Your task to perform on an android device: turn on location history Image 0: 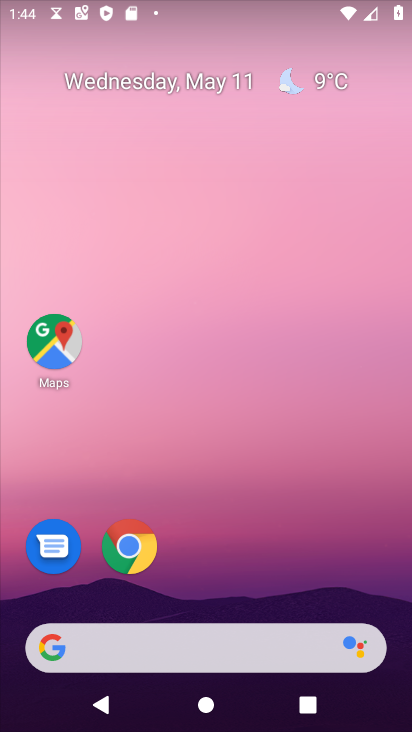
Step 0: drag from (259, 674) to (250, 262)
Your task to perform on an android device: turn on location history Image 1: 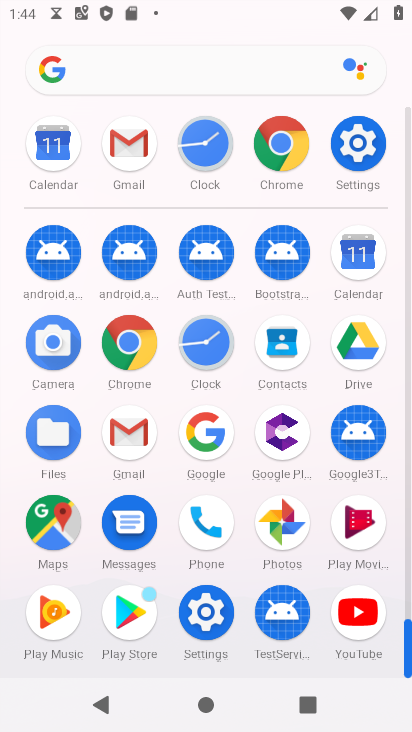
Step 1: click (351, 154)
Your task to perform on an android device: turn on location history Image 2: 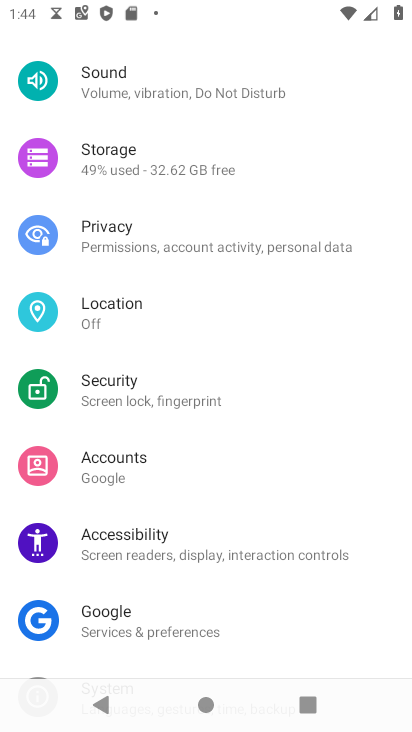
Step 2: click (135, 313)
Your task to perform on an android device: turn on location history Image 3: 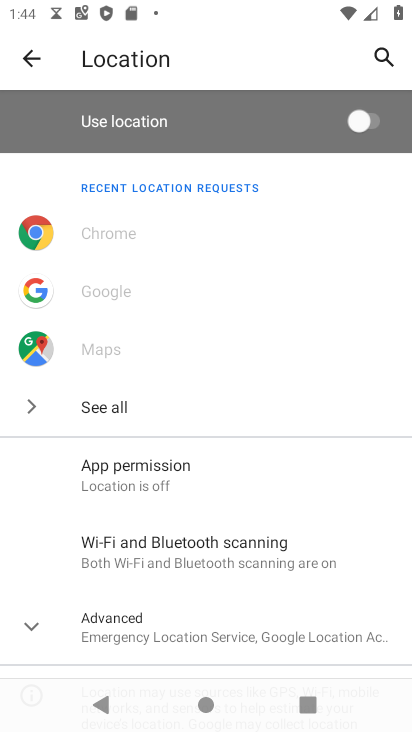
Step 3: drag from (235, 636) to (280, 267)
Your task to perform on an android device: turn on location history Image 4: 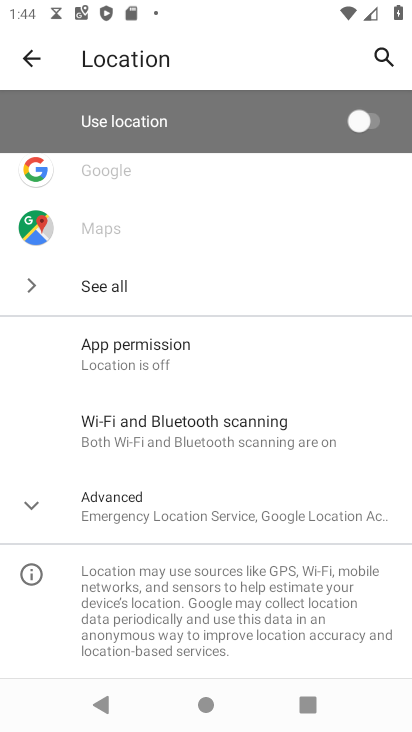
Step 4: click (169, 512)
Your task to perform on an android device: turn on location history Image 5: 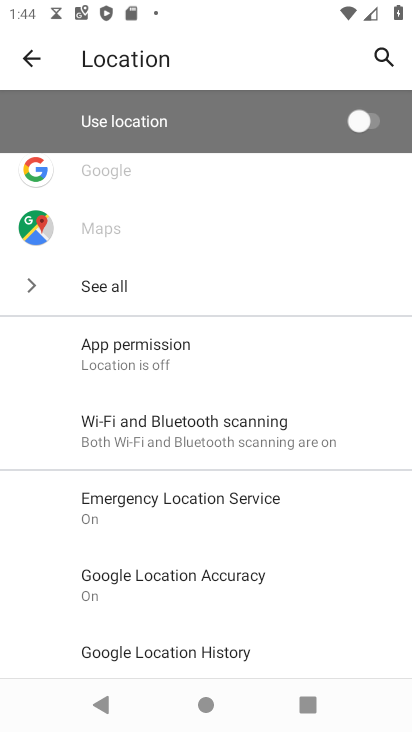
Step 5: drag from (260, 650) to (282, 427)
Your task to perform on an android device: turn on location history Image 6: 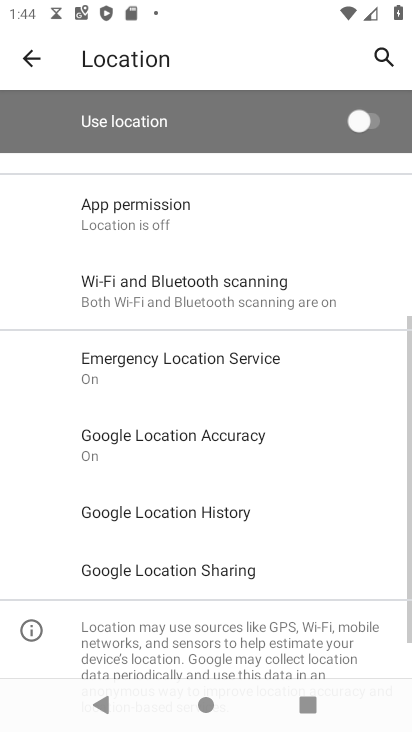
Step 6: click (267, 460)
Your task to perform on an android device: turn on location history Image 7: 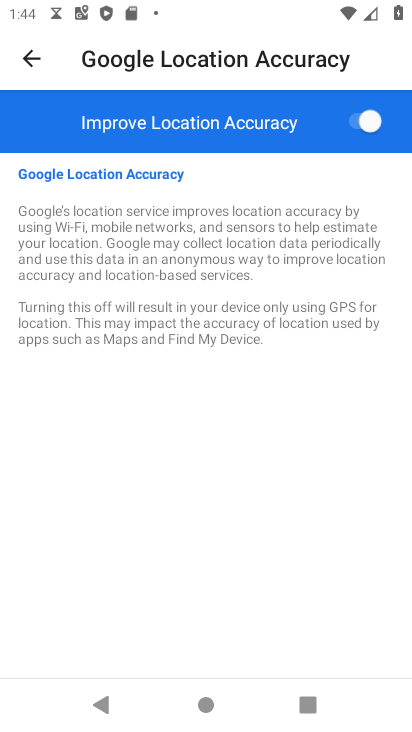
Step 7: press back button
Your task to perform on an android device: turn on location history Image 8: 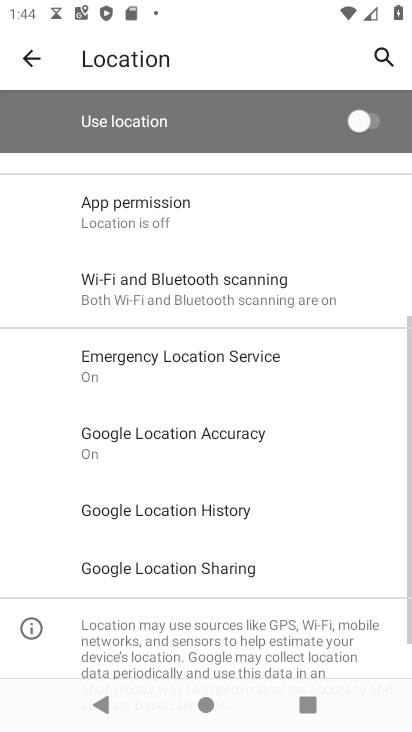
Step 8: click (255, 512)
Your task to perform on an android device: turn on location history Image 9: 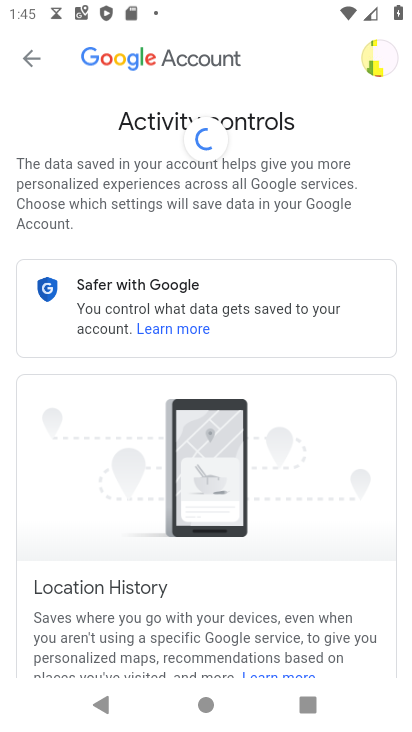
Step 9: drag from (292, 639) to (325, 194)
Your task to perform on an android device: turn on location history Image 10: 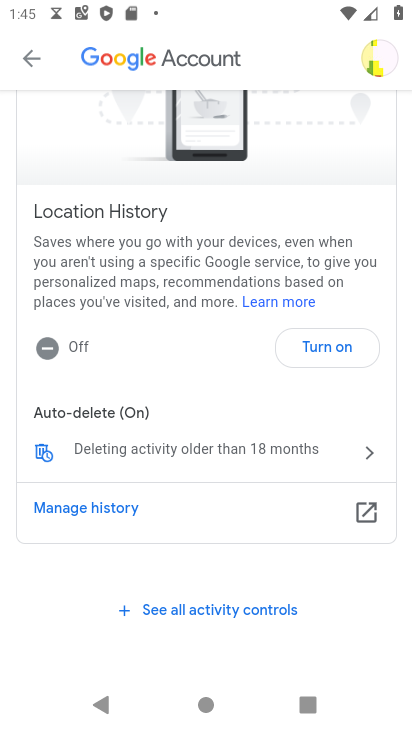
Step 10: click (331, 346)
Your task to perform on an android device: turn on location history Image 11: 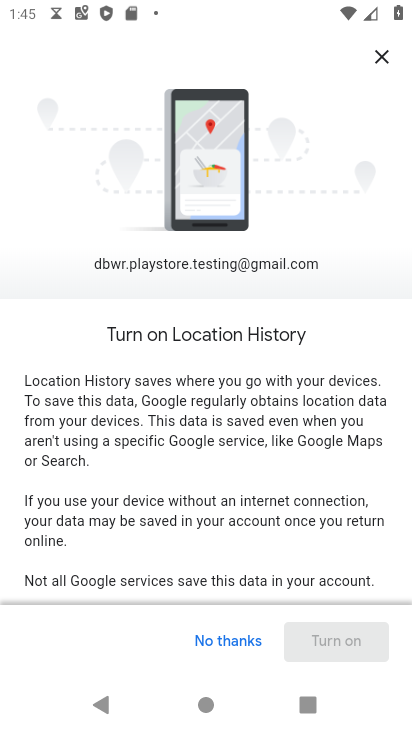
Step 11: drag from (275, 595) to (300, 254)
Your task to perform on an android device: turn on location history Image 12: 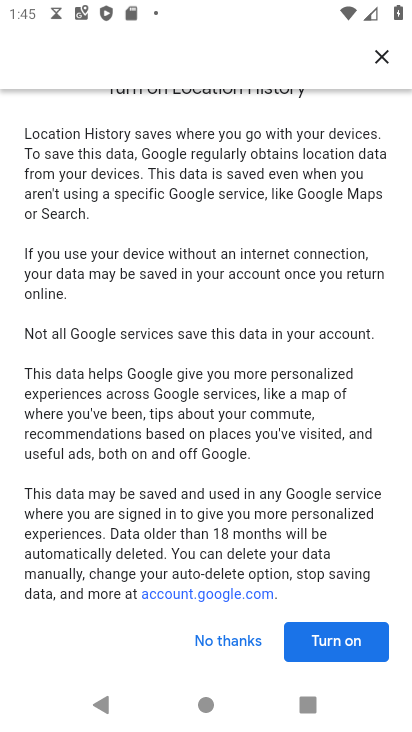
Step 12: click (347, 637)
Your task to perform on an android device: turn on location history Image 13: 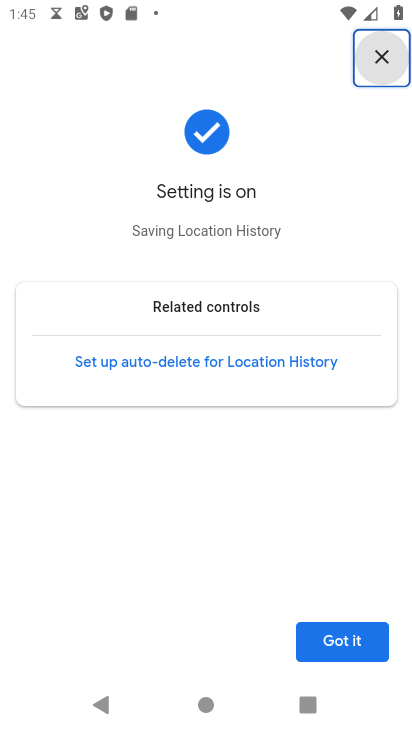
Step 13: task complete